Your task to perform on an android device: Open Amazon Image 0: 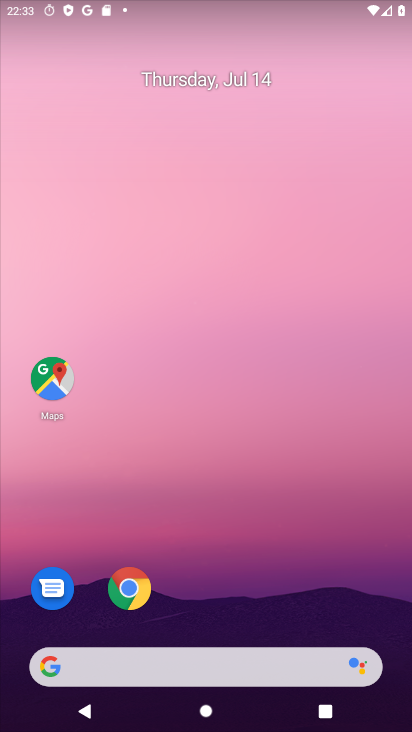
Step 0: drag from (231, 604) to (282, 87)
Your task to perform on an android device: Open Amazon Image 1: 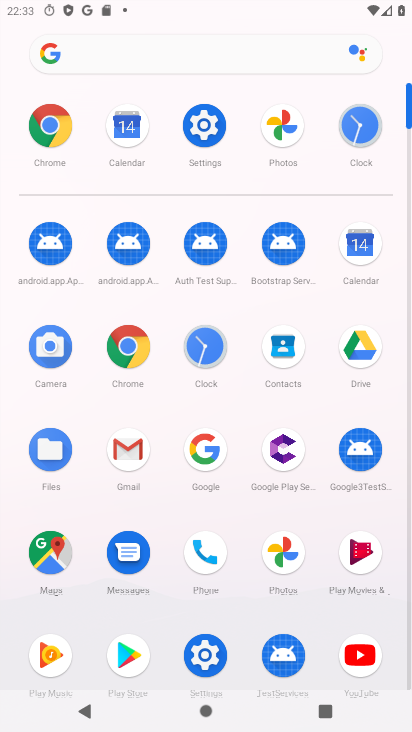
Step 1: click (127, 350)
Your task to perform on an android device: Open Amazon Image 2: 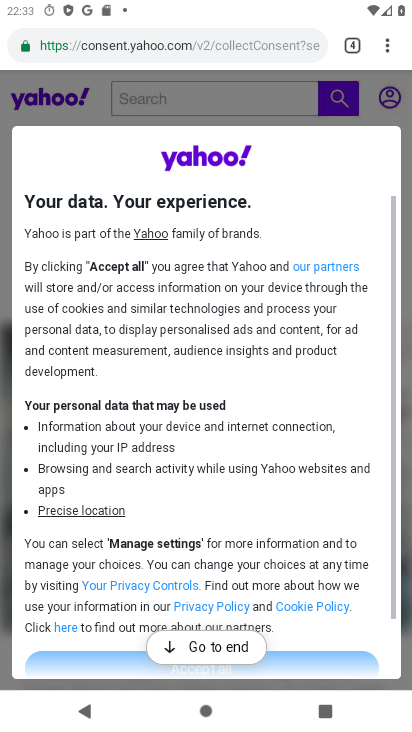
Step 2: press back button
Your task to perform on an android device: Open Amazon Image 3: 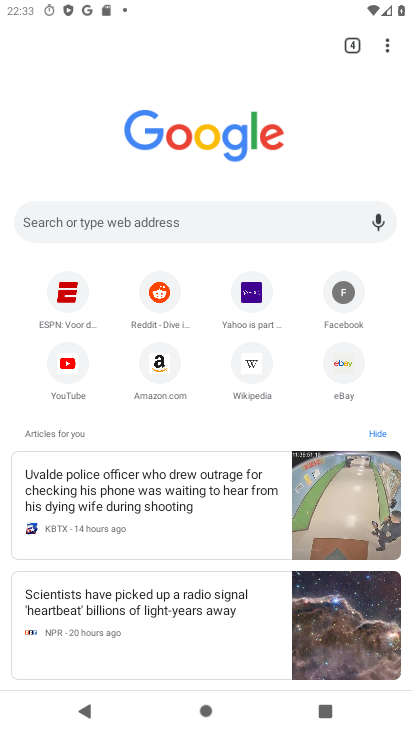
Step 3: click (161, 365)
Your task to perform on an android device: Open Amazon Image 4: 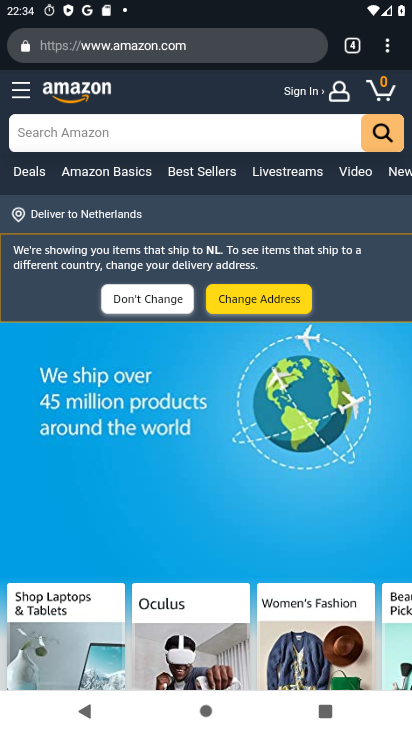
Step 4: task complete